Your task to perform on an android device: turn on bluetooth scan Image 0: 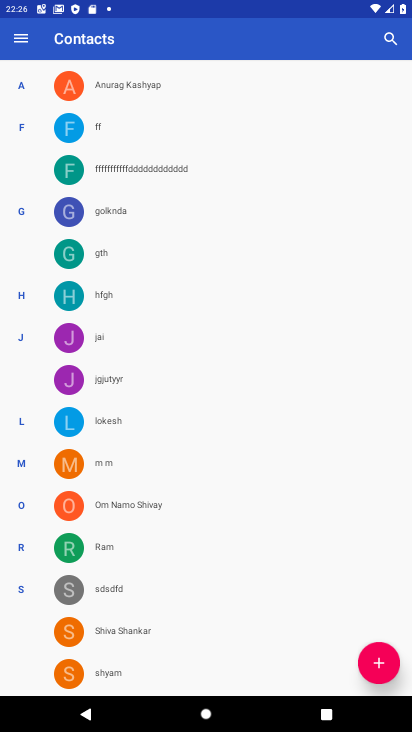
Step 0: press home button
Your task to perform on an android device: turn on bluetooth scan Image 1: 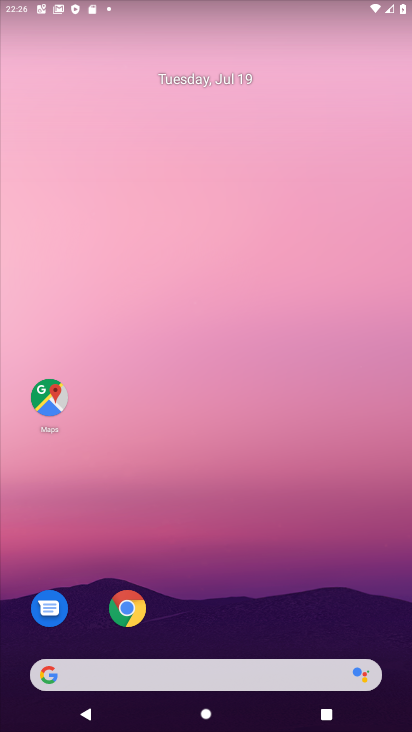
Step 1: drag from (289, 533) to (305, 40)
Your task to perform on an android device: turn on bluetooth scan Image 2: 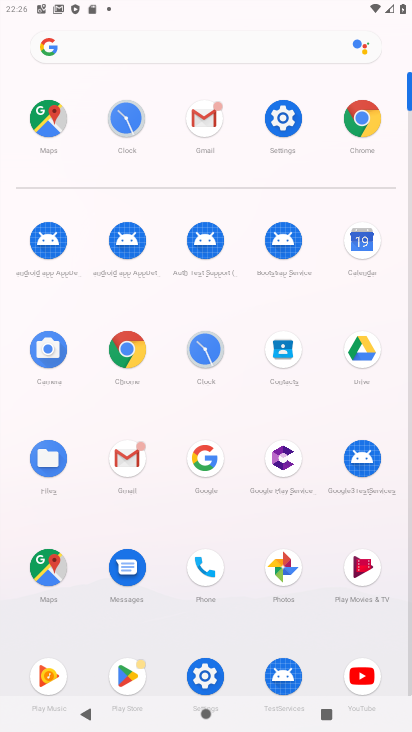
Step 2: click (293, 106)
Your task to perform on an android device: turn on bluetooth scan Image 3: 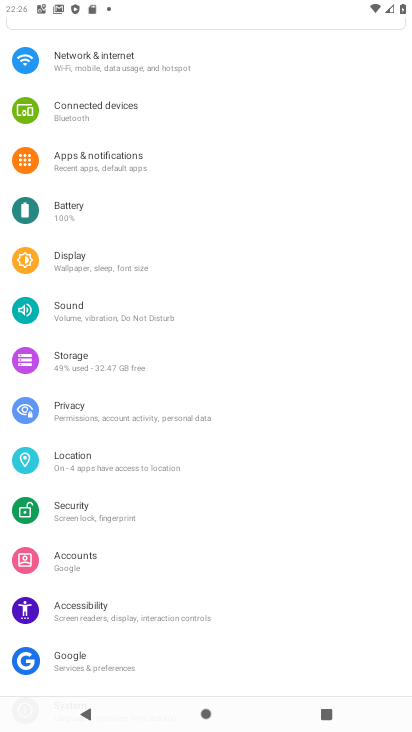
Step 3: click (83, 480)
Your task to perform on an android device: turn on bluetooth scan Image 4: 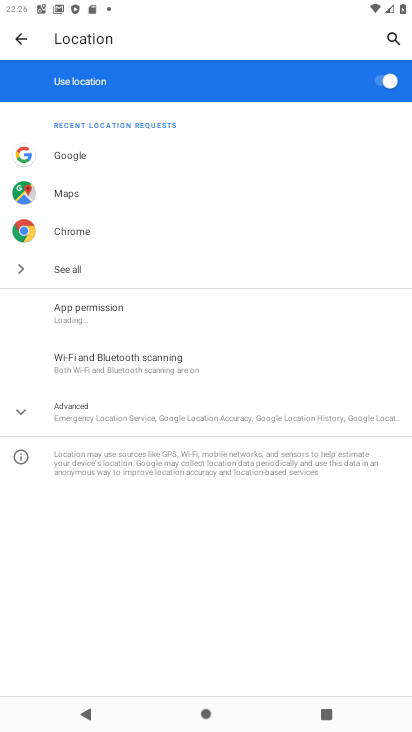
Step 4: click (97, 414)
Your task to perform on an android device: turn on bluetooth scan Image 5: 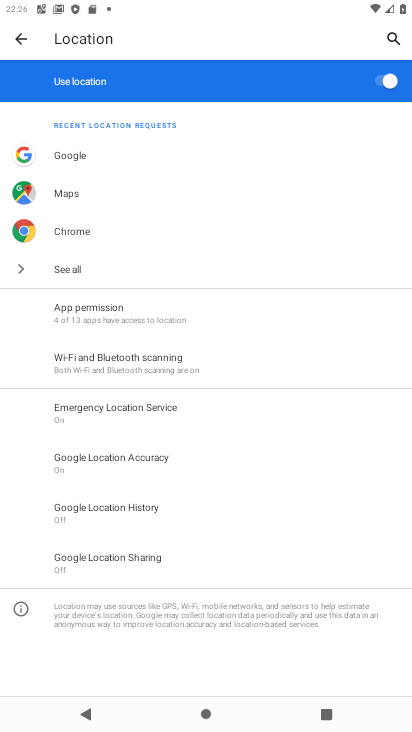
Step 5: click (117, 356)
Your task to perform on an android device: turn on bluetooth scan Image 6: 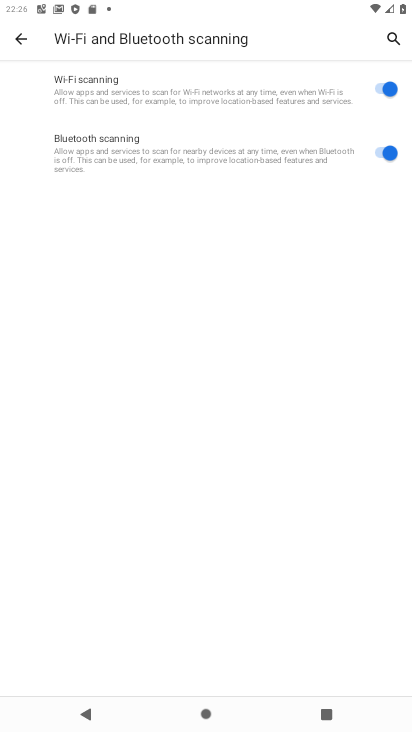
Step 6: task complete